Your task to perform on an android device: see tabs open on other devices in the chrome app Image 0: 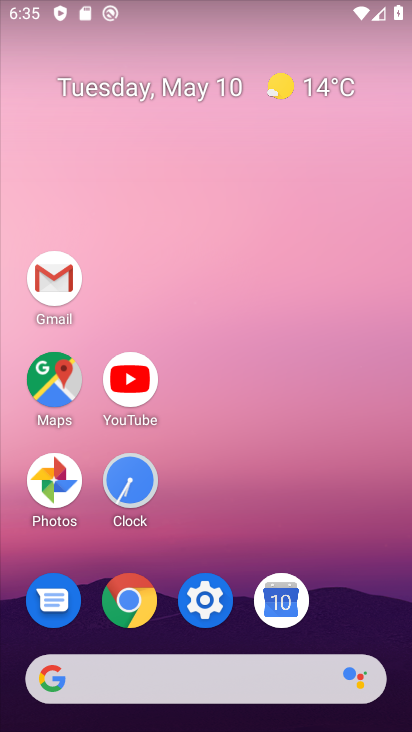
Step 0: click (129, 600)
Your task to perform on an android device: see tabs open on other devices in the chrome app Image 1: 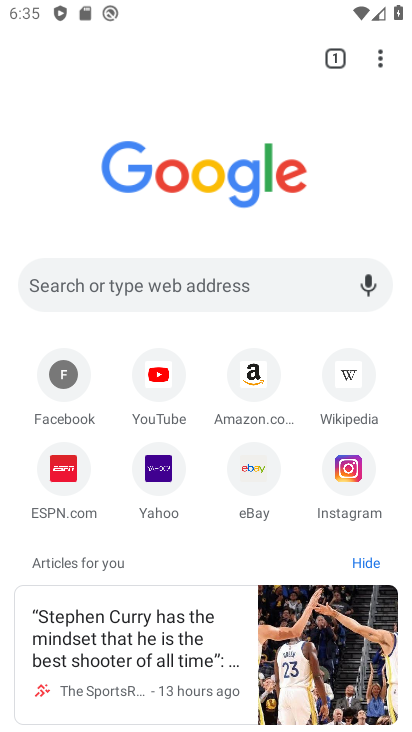
Step 1: click (381, 58)
Your task to perform on an android device: see tabs open on other devices in the chrome app Image 2: 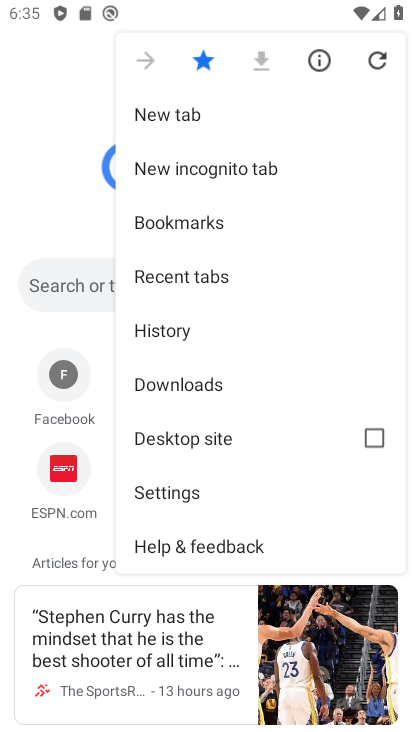
Step 2: click (179, 275)
Your task to perform on an android device: see tabs open on other devices in the chrome app Image 3: 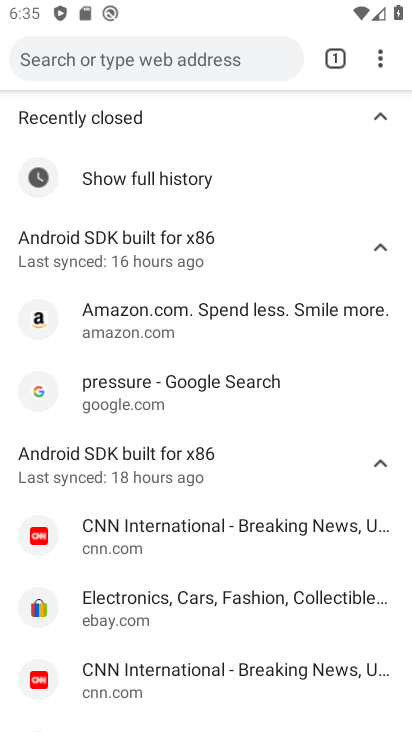
Step 3: task complete